Your task to perform on an android device: Open Google Maps Image 0: 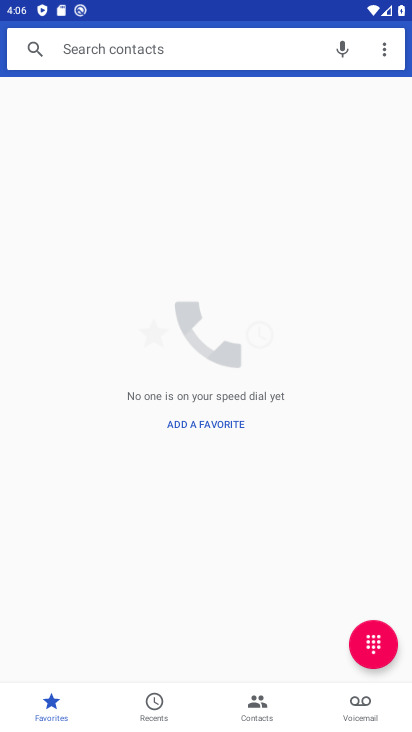
Step 0: press home button
Your task to perform on an android device: Open Google Maps Image 1: 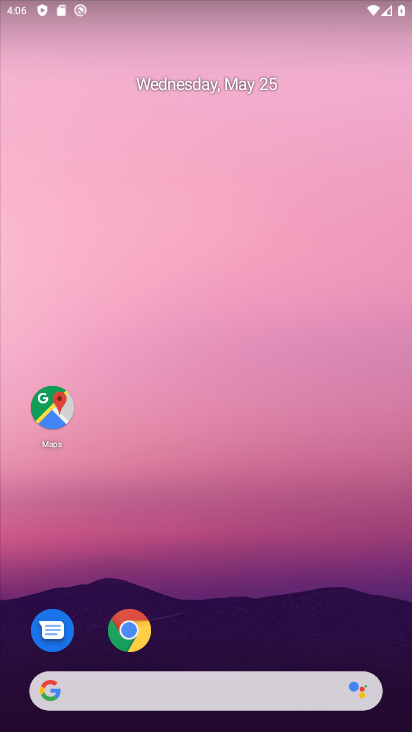
Step 1: click (54, 410)
Your task to perform on an android device: Open Google Maps Image 2: 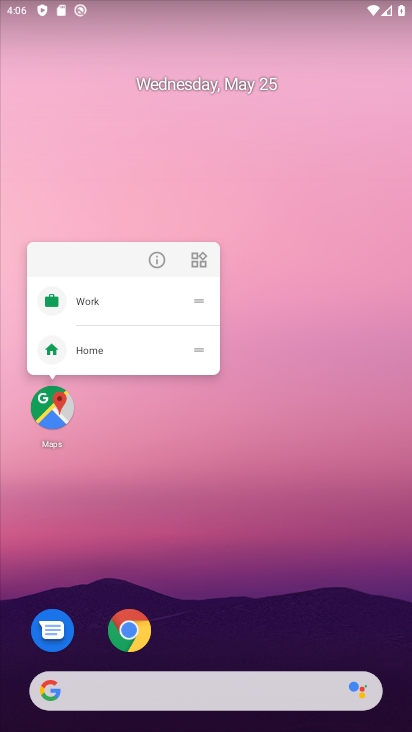
Step 2: click (55, 396)
Your task to perform on an android device: Open Google Maps Image 3: 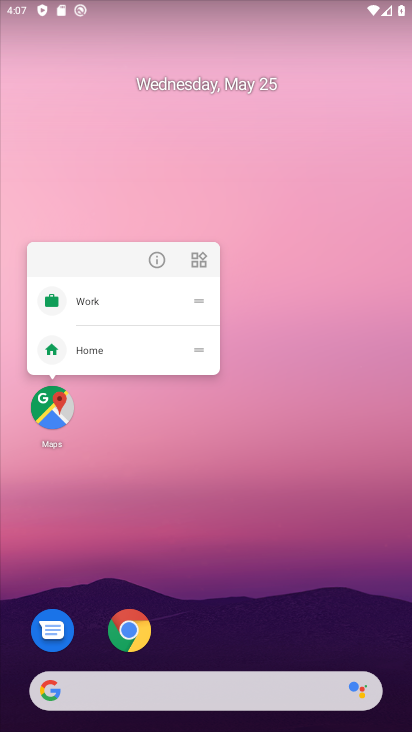
Step 3: click (64, 404)
Your task to perform on an android device: Open Google Maps Image 4: 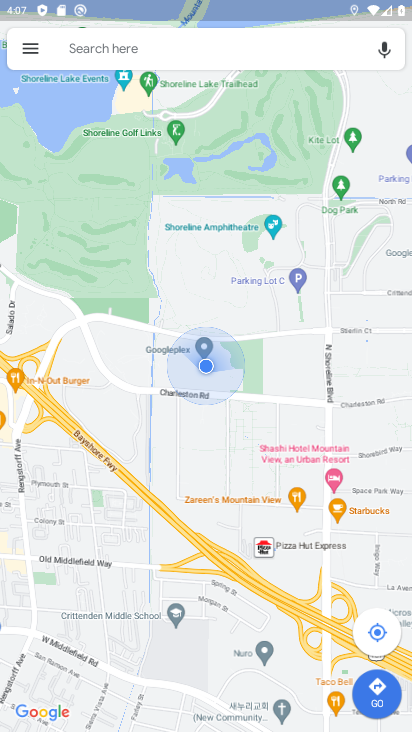
Step 4: task complete